Your task to perform on an android device: all mails in gmail Image 0: 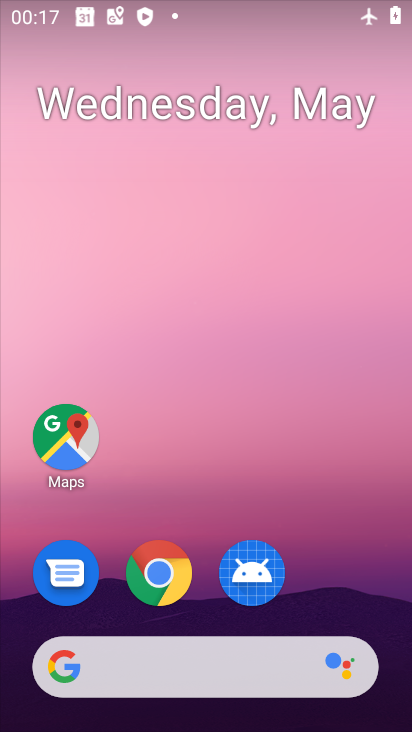
Step 0: drag from (323, 483) to (376, 65)
Your task to perform on an android device: all mails in gmail Image 1: 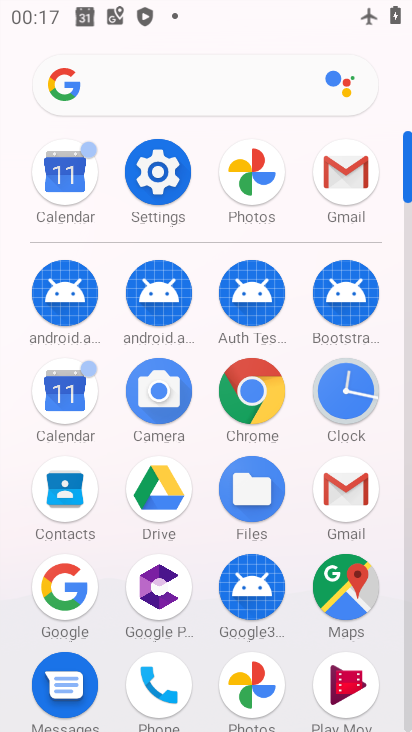
Step 1: click (338, 173)
Your task to perform on an android device: all mails in gmail Image 2: 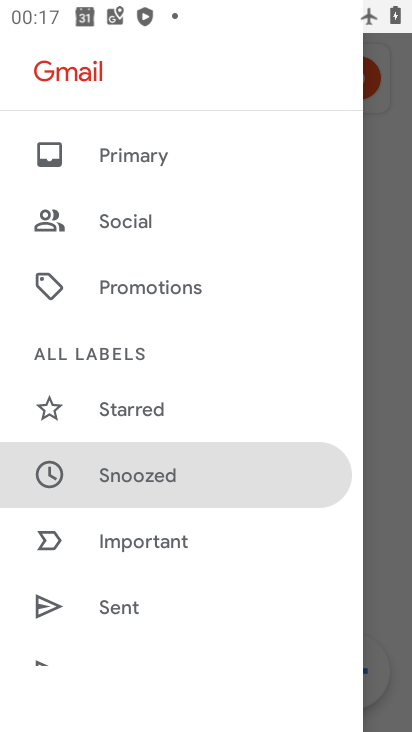
Step 2: drag from (190, 346) to (193, 645)
Your task to perform on an android device: all mails in gmail Image 3: 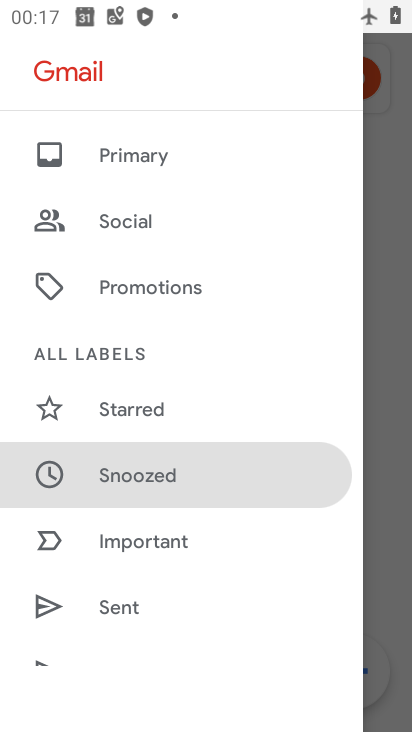
Step 3: drag from (182, 594) to (182, 213)
Your task to perform on an android device: all mails in gmail Image 4: 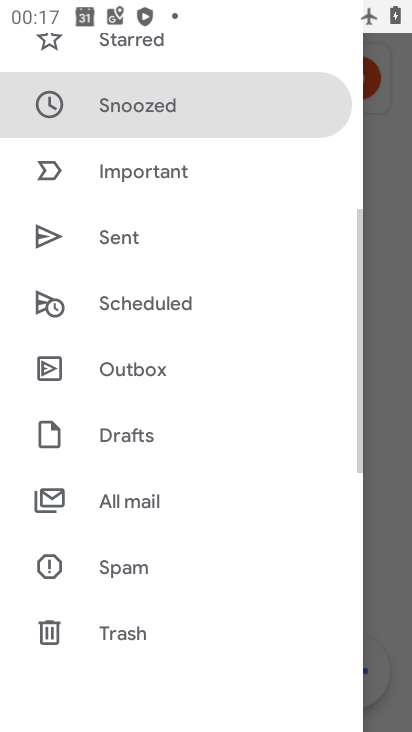
Step 4: click (143, 498)
Your task to perform on an android device: all mails in gmail Image 5: 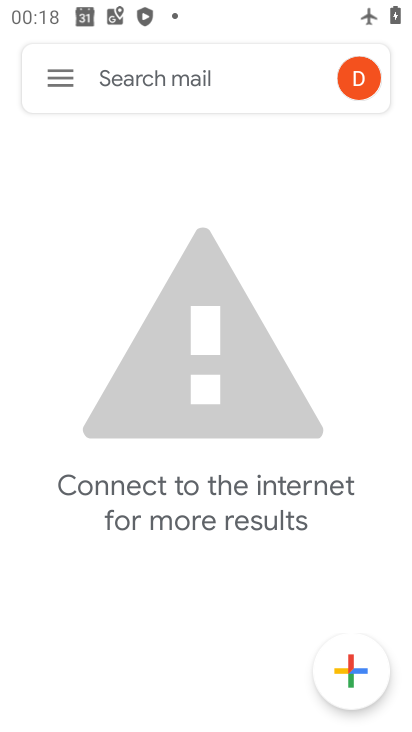
Step 5: task complete